Your task to perform on an android device: Go to Maps Image 0: 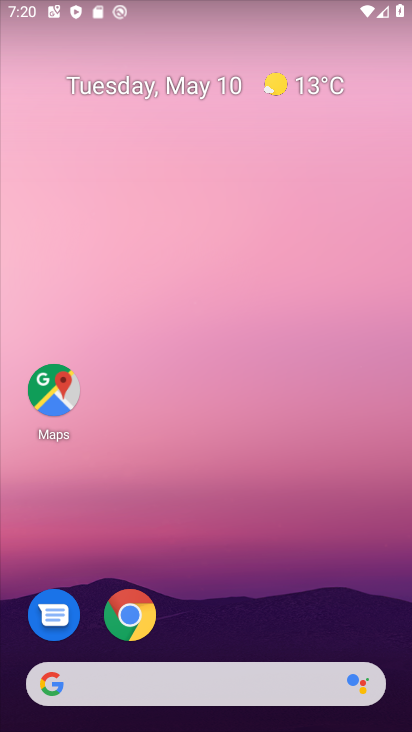
Step 0: drag from (275, 588) to (224, 43)
Your task to perform on an android device: Go to Maps Image 1: 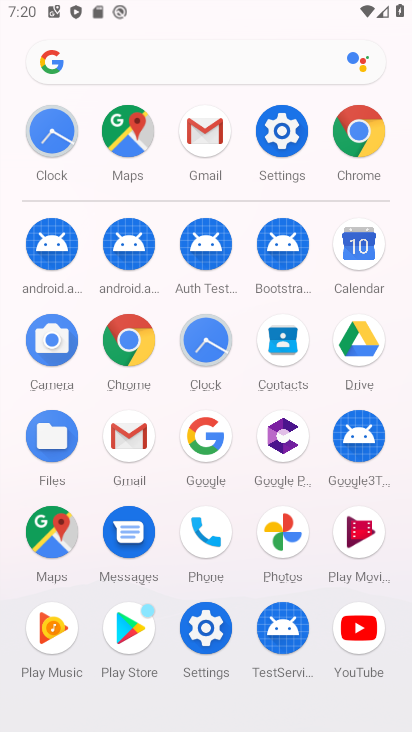
Step 1: click (114, 153)
Your task to perform on an android device: Go to Maps Image 2: 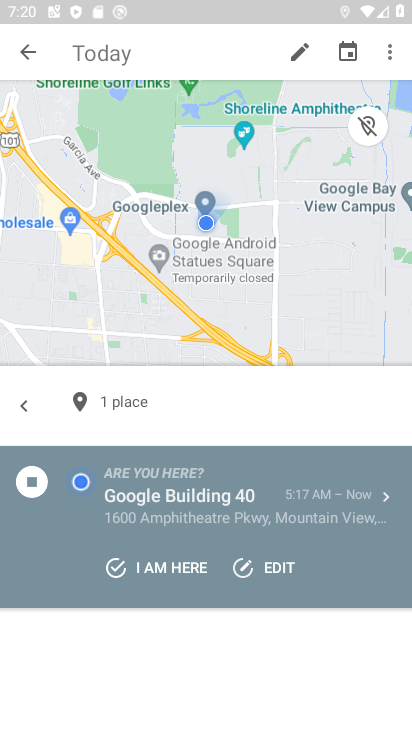
Step 2: task complete